Your task to perform on an android device: turn off location Image 0: 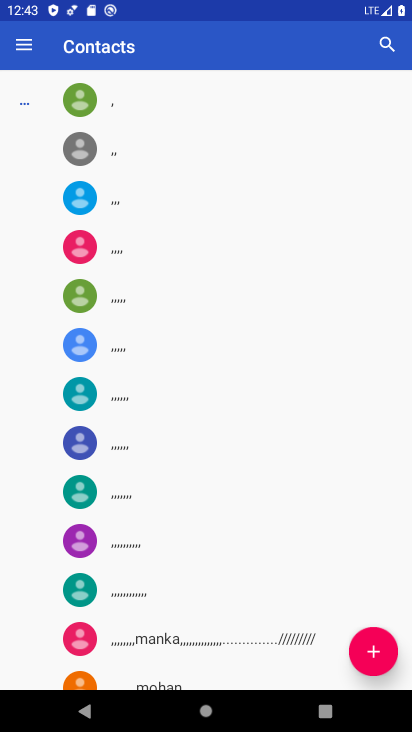
Step 0: press home button
Your task to perform on an android device: turn off location Image 1: 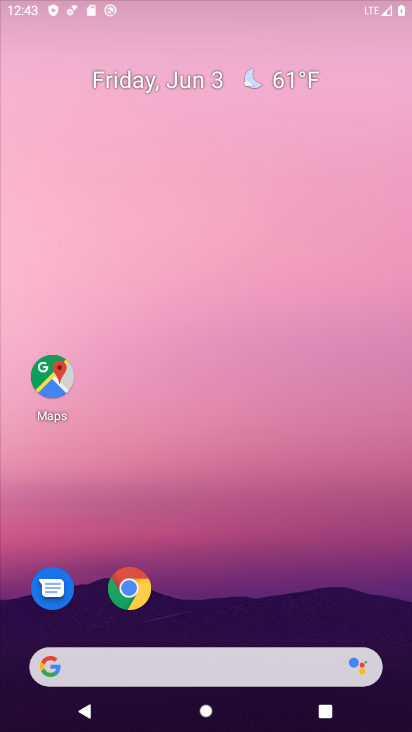
Step 1: drag from (276, 572) to (371, 126)
Your task to perform on an android device: turn off location Image 2: 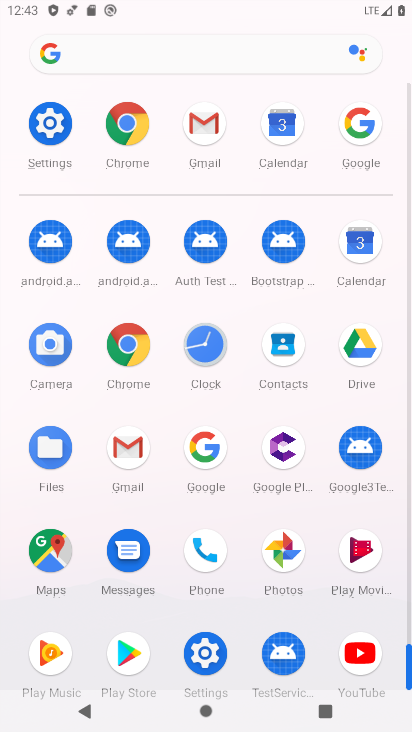
Step 2: click (208, 640)
Your task to perform on an android device: turn off location Image 3: 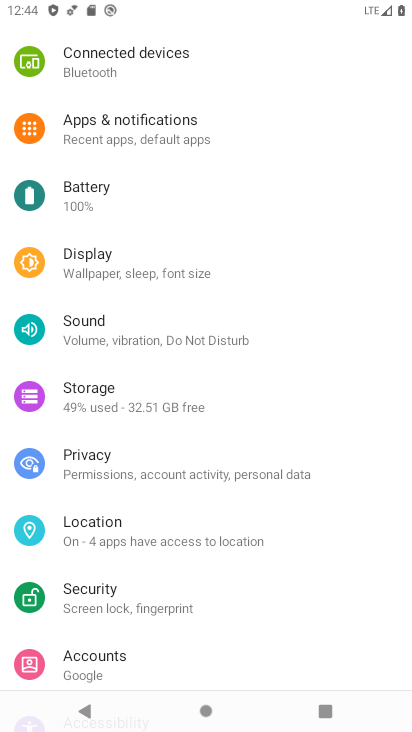
Step 3: click (154, 543)
Your task to perform on an android device: turn off location Image 4: 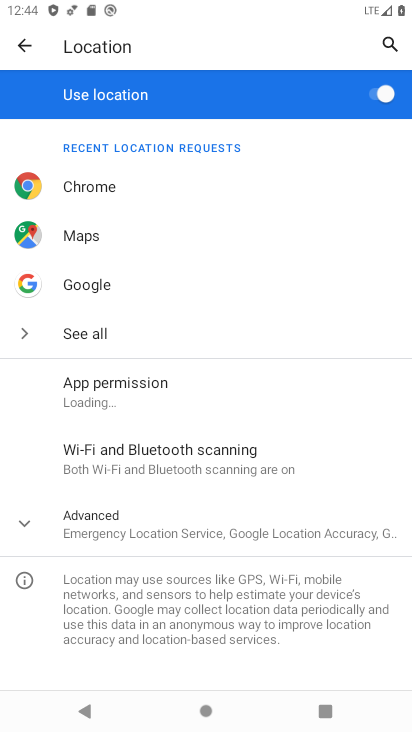
Step 4: click (385, 88)
Your task to perform on an android device: turn off location Image 5: 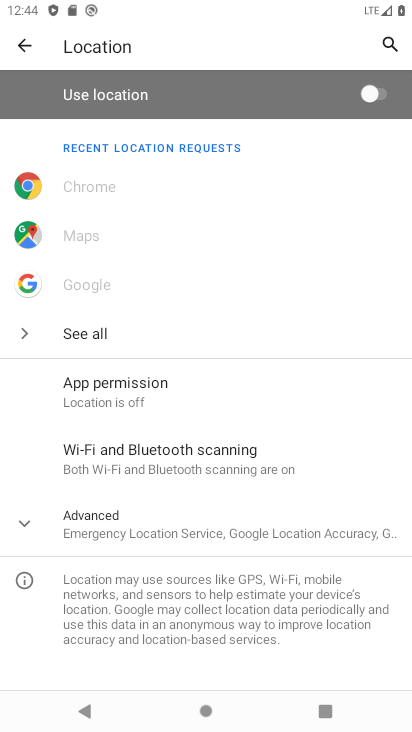
Step 5: task complete